Your task to perform on an android device: find snoozed emails in the gmail app Image 0: 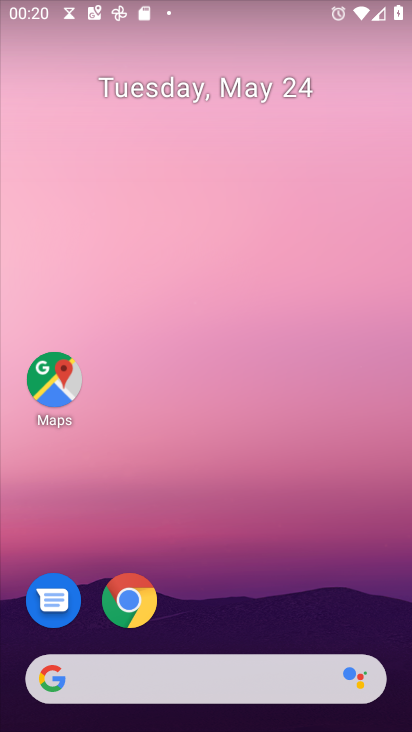
Step 0: drag from (212, 729) to (185, 5)
Your task to perform on an android device: find snoozed emails in the gmail app Image 1: 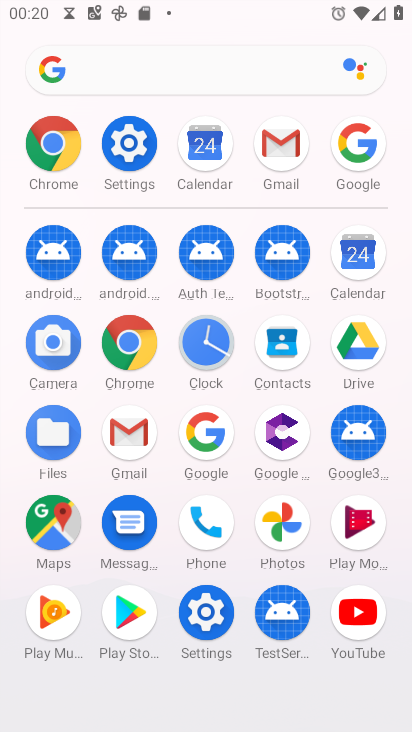
Step 1: click (128, 430)
Your task to perform on an android device: find snoozed emails in the gmail app Image 2: 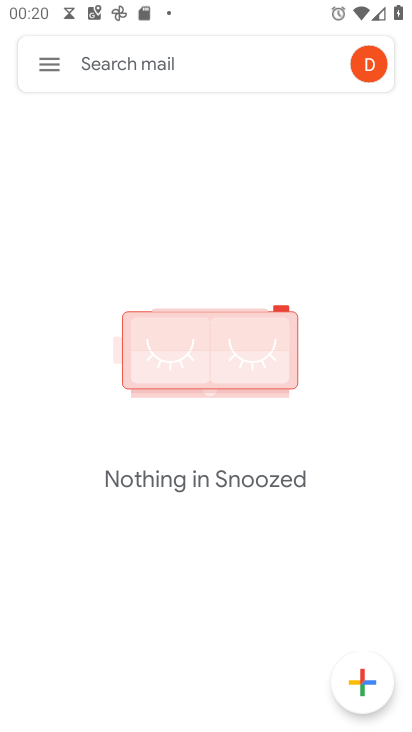
Step 2: task complete